Your task to perform on an android device: Open the map Image 0: 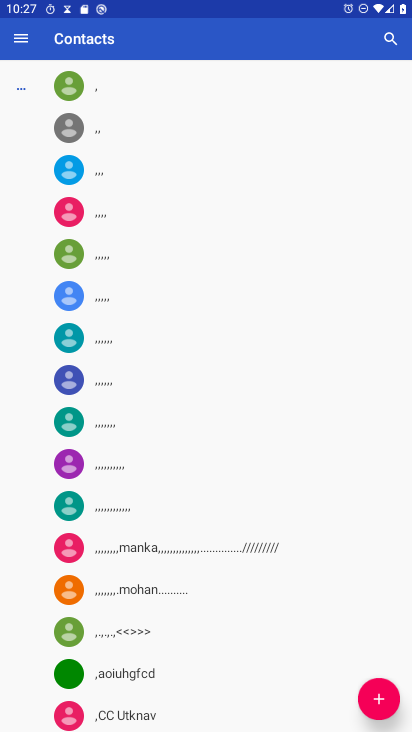
Step 0: press home button
Your task to perform on an android device: Open the map Image 1: 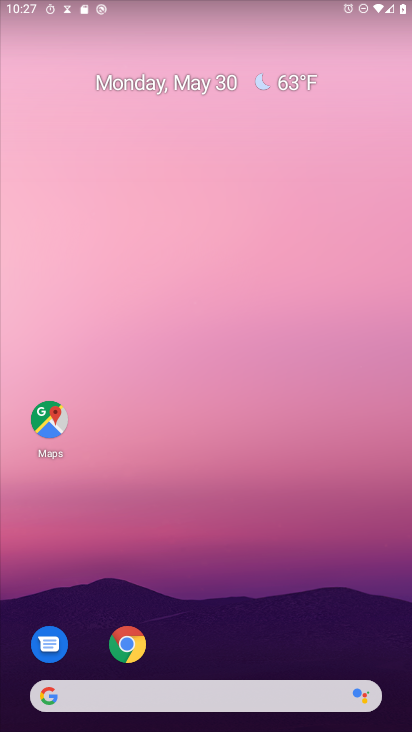
Step 1: click (43, 421)
Your task to perform on an android device: Open the map Image 2: 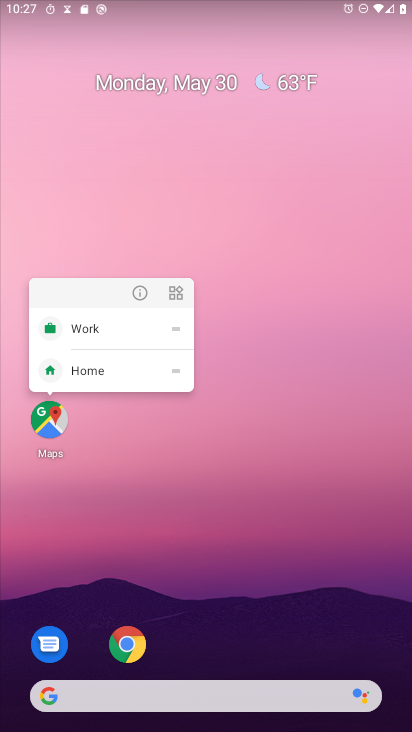
Step 2: click (47, 419)
Your task to perform on an android device: Open the map Image 3: 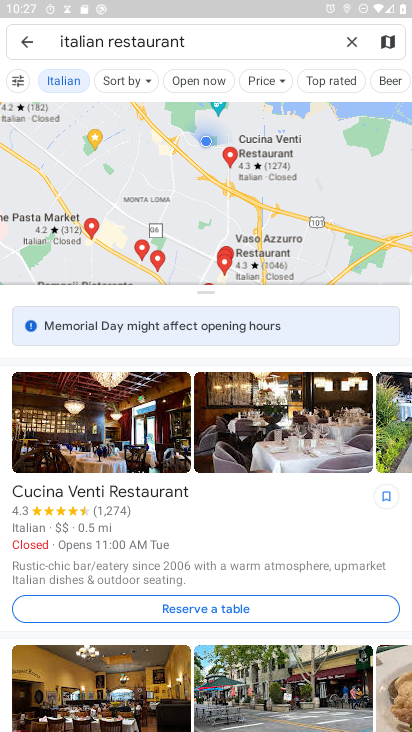
Step 3: task complete